Your task to perform on an android device: Open Wikipedia Image 0: 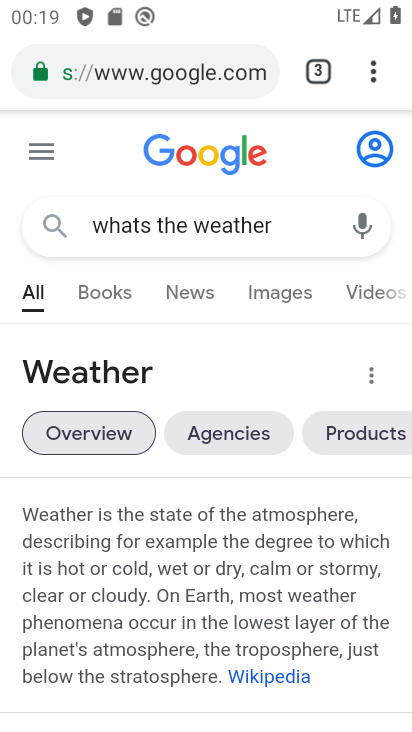
Step 0: press home button
Your task to perform on an android device: Open Wikipedia Image 1: 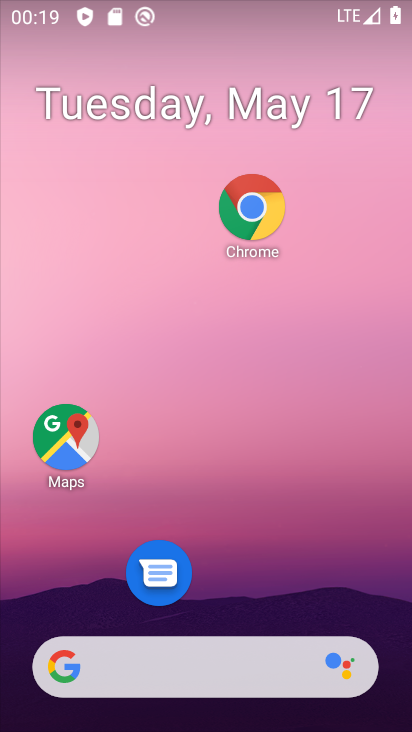
Step 1: drag from (211, 650) to (256, 21)
Your task to perform on an android device: Open Wikipedia Image 2: 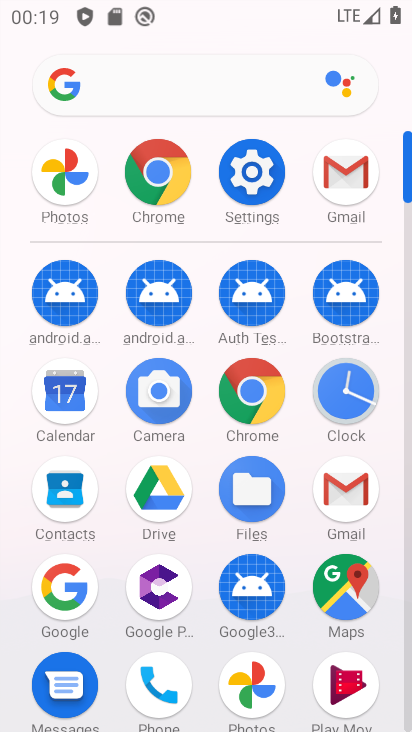
Step 2: click (263, 376)
Your task to perform on an android device: Open Wikipedia Image 3: 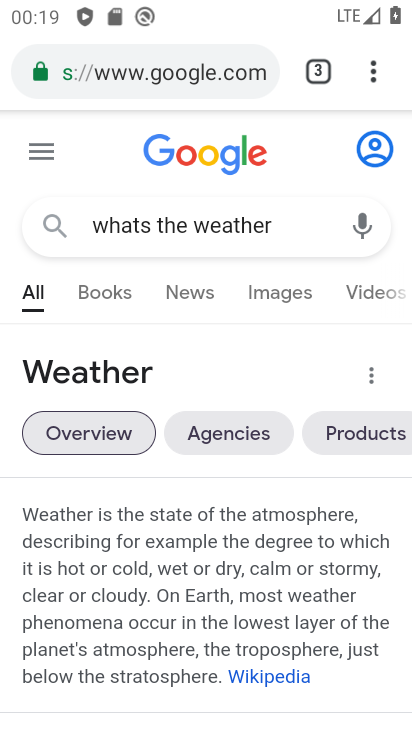
Step 3: click (239, 84)
Your task to perform on an android device: Open Wikipedia Image 4: 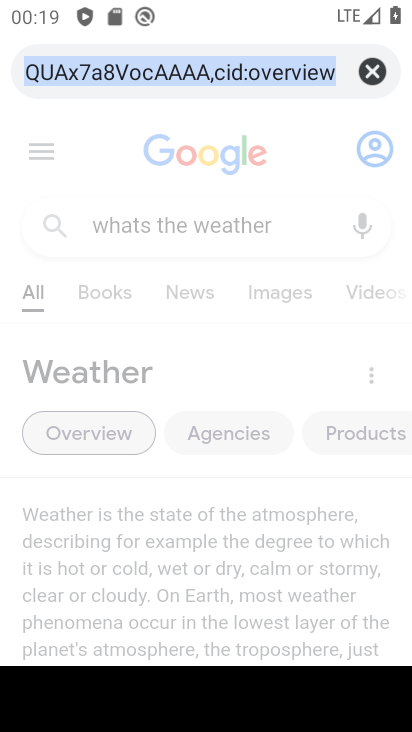
Step 4: click (366, 69)
Your task to perform on an android device: Open Wikipedia Image 5: 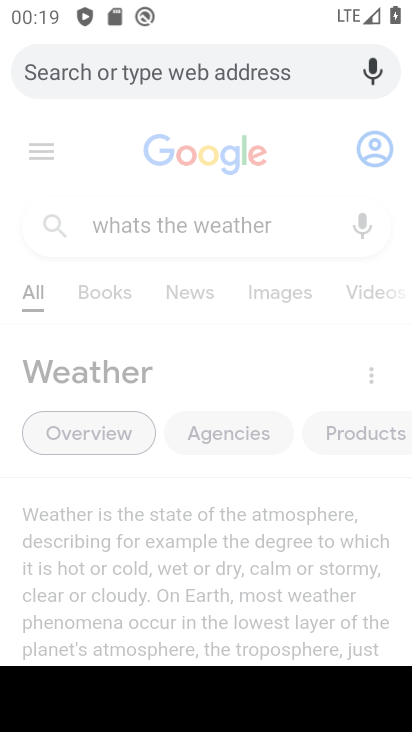
Step 5: type "wikipedia"
Your task to perform on an android device: Open Wikipedia Image 6: 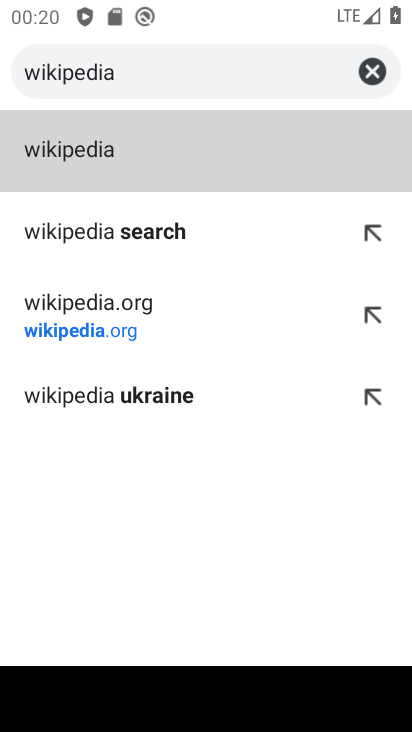
Step 6: click (287, 140)
Your task to perform on an android device: Open Wikipedia Image 7: 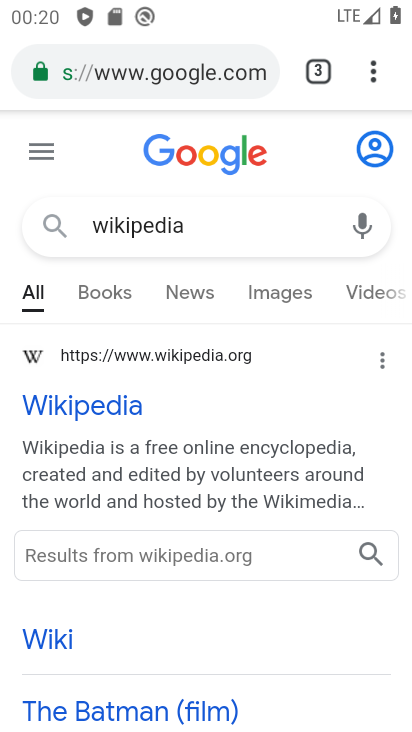
Step 7: task complete